Your task to perform on an android device: Go to eBay Image 0: 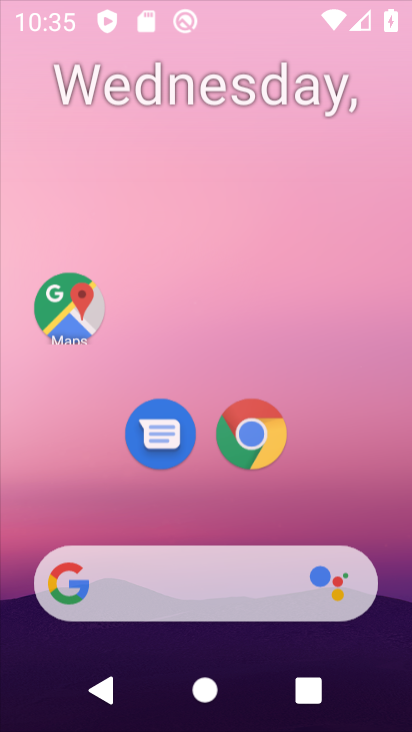
Step 0: press back button
Your task to perform on an android device: Go to eBay Image 1: 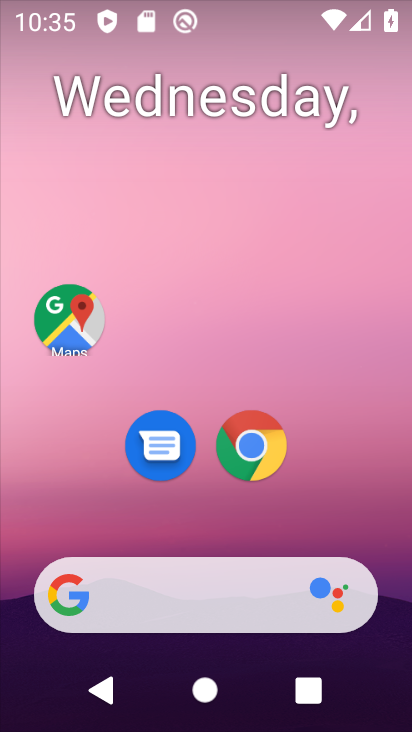
Step 1: click (236, 445)
Your task to perform on an android device: Go to eBay Image 2: 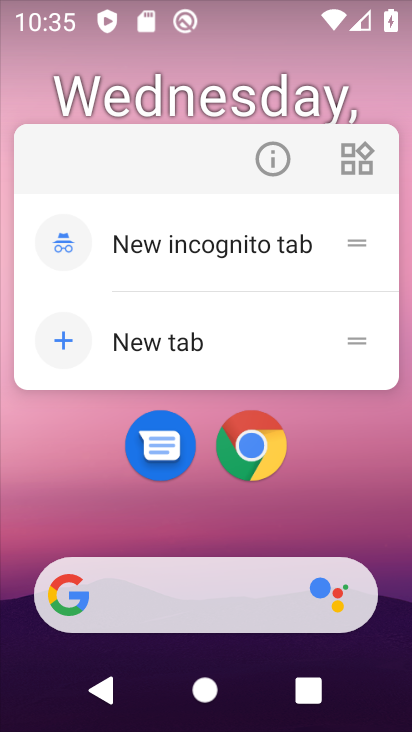
Step 2: click (252, 438)
Your task to perform on an android device: Go to eBay Image 3: 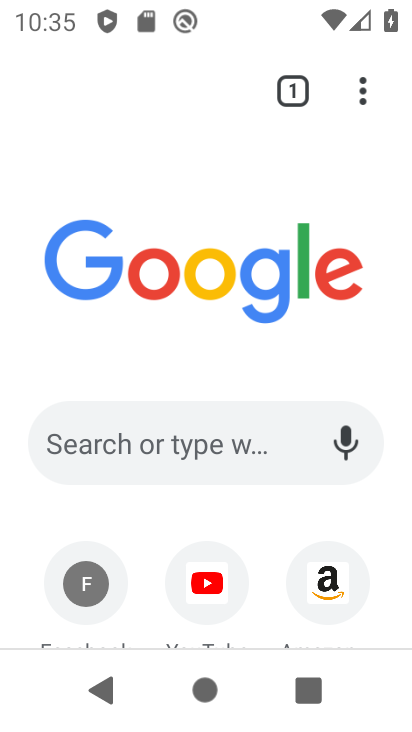
Step 3: drag from (211, 587) to (254, 222)
Your task to perform on an android device: Go to eBay Image 4: 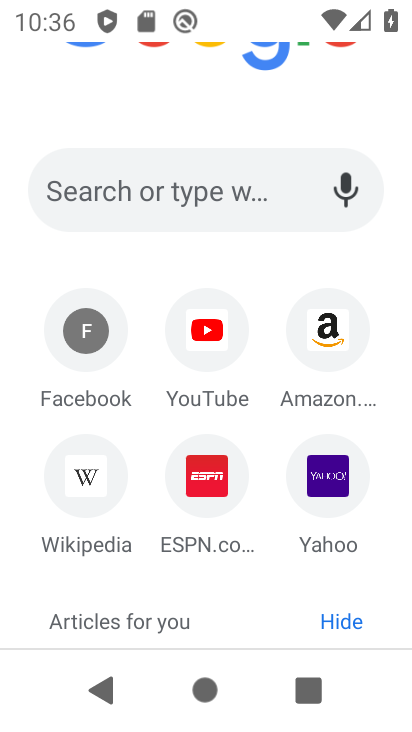
Step 4: click (160, 176)
Your task to perform on an android device: Go to eBay Image 5: 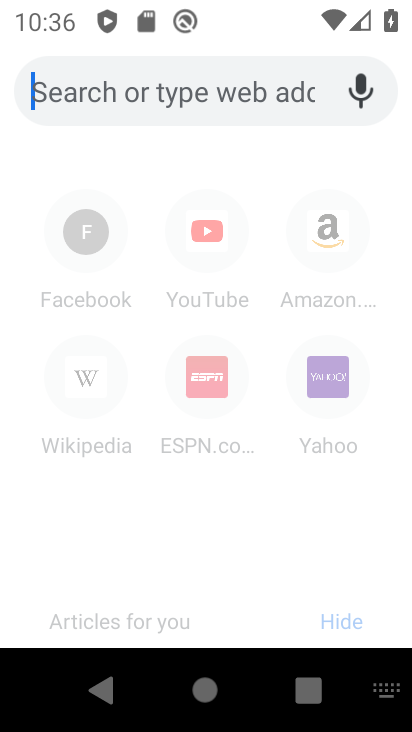
Step 5: type "ebay"
Your task to perform on an android device: Go to eBay Image 6: 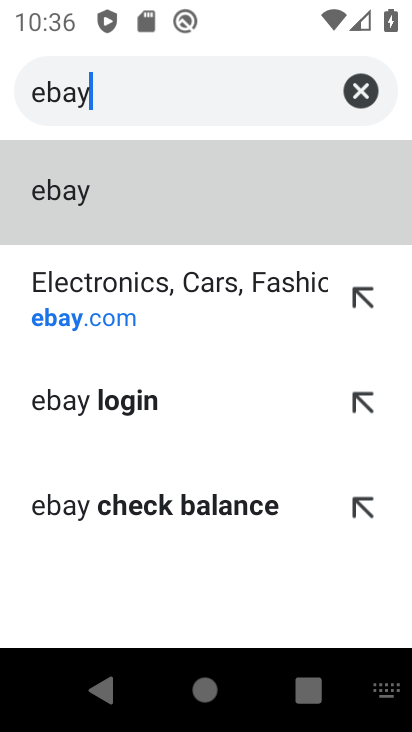
Step 6: click (112, 284)
Your task to perform on an android device: Go to eBay Image 7: 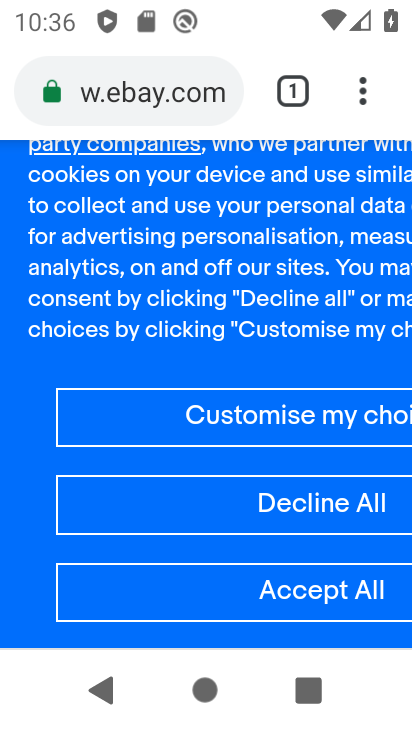
Step 7: task complete